Your task to perform on an android device: Is it going to rain today? Image 0: 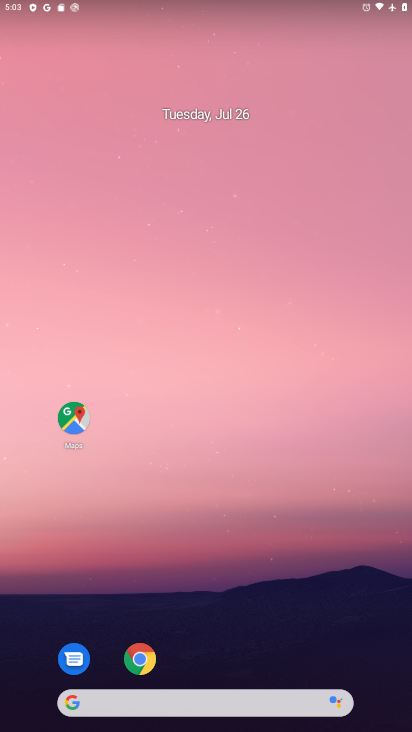
Step 0: press home button
Your task to perform on an android device: Is it going to rain today? Image 1: 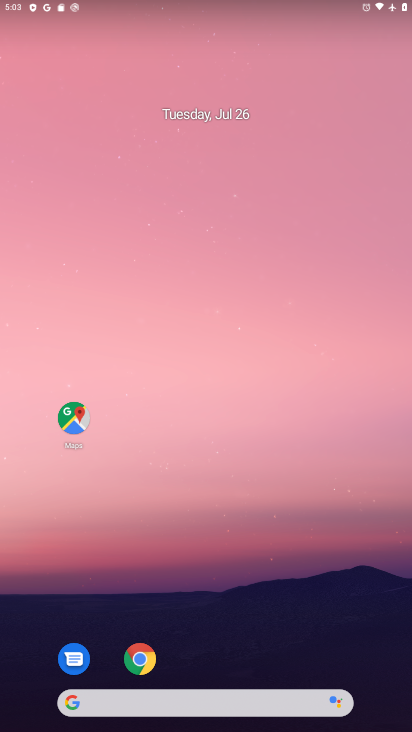
Step 1: click (182, 694)
Your task to perform on an android device: Is it going to rain today? Image 2: 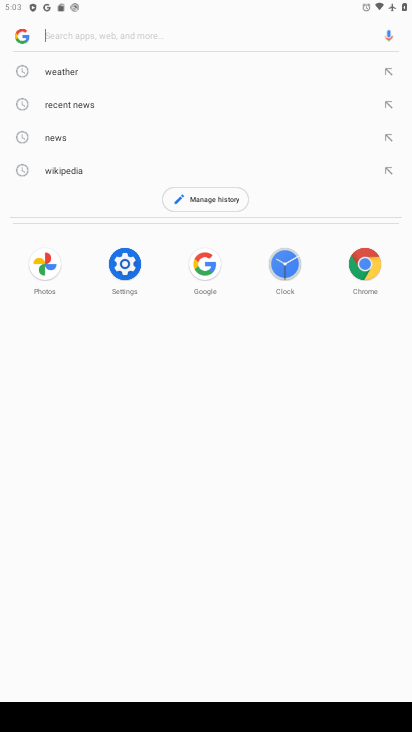
Step 2: click (80, 67)
Your task to perform on an android device: Is it going to rain today? Image 3: 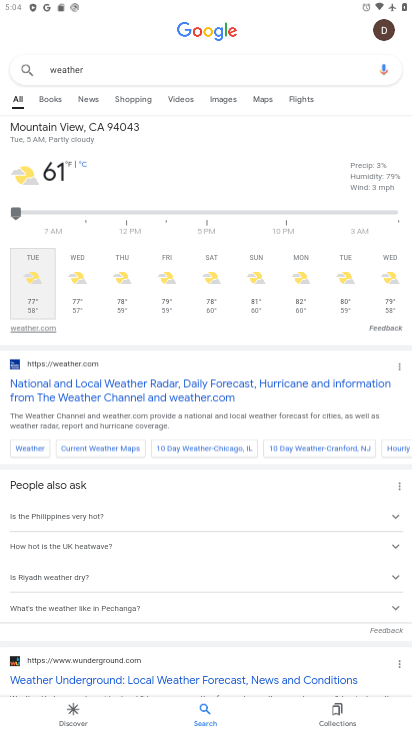
Step 3: task complete